Your task to perform on an android device: toggle notifications settings in the gmail app Image 0: 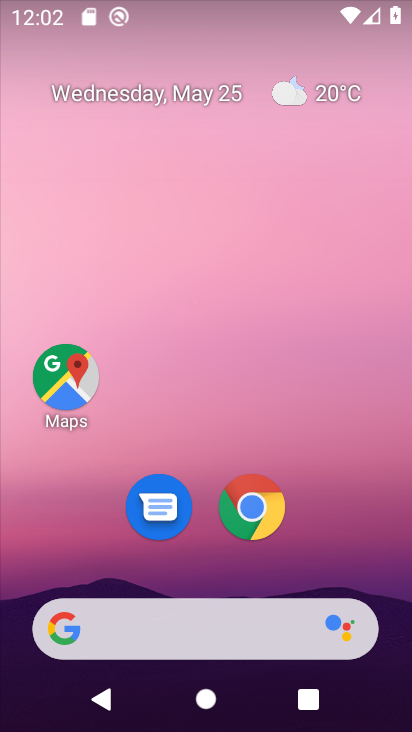
Step 0: drag from (336, 521) to (299, 160)
Your task to perform on an android device: toggle notifications settings in the gmail app Image 1: 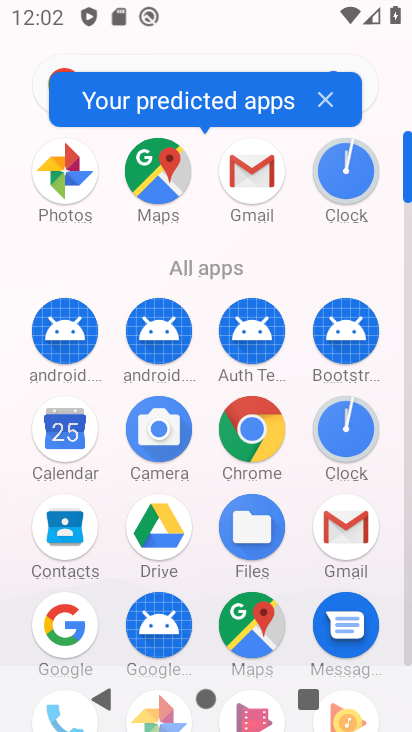
Step 1: click (350, 532)
Your task to perform on an android device: toggle notifications settings in the gmail app Image 2: 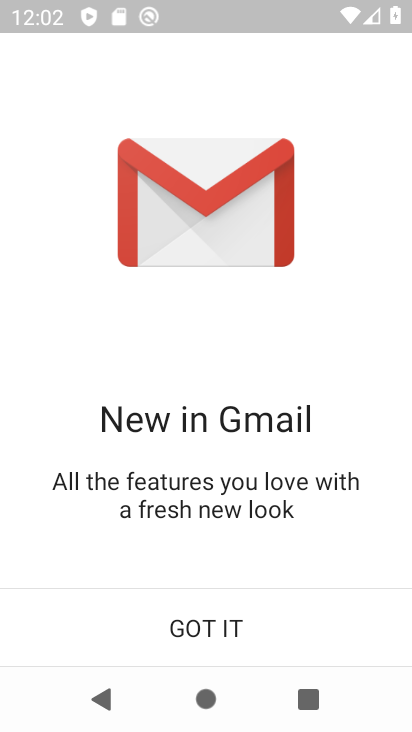
Step 2: click (242, 640)
Your task to perform on an android device: toggle notifications settings in the gmail app Image 3: 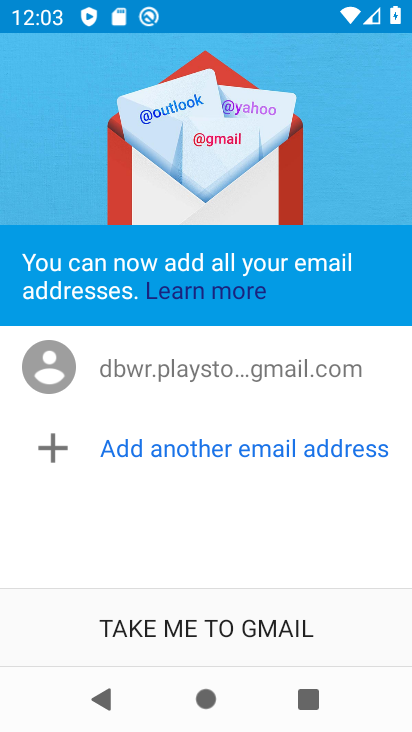
Step 3: click (240, 636)
Your task to perform on an android device: toggle notifications settings in the gmail app Image 4: 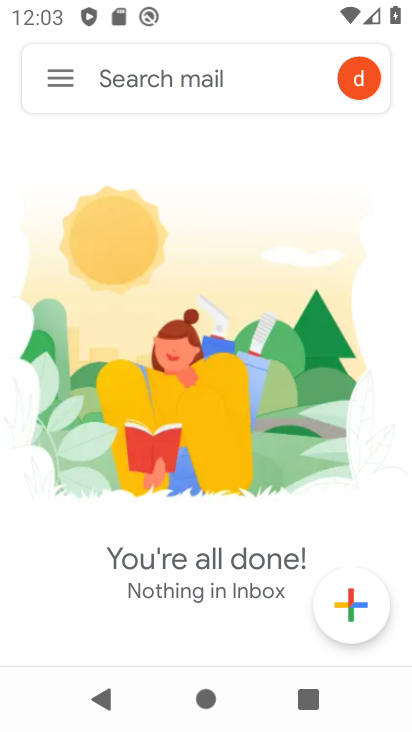
Step 4: click (55, 73)
Your task to perform on an android device: toggle notifications settings in the gmail app Image 5: 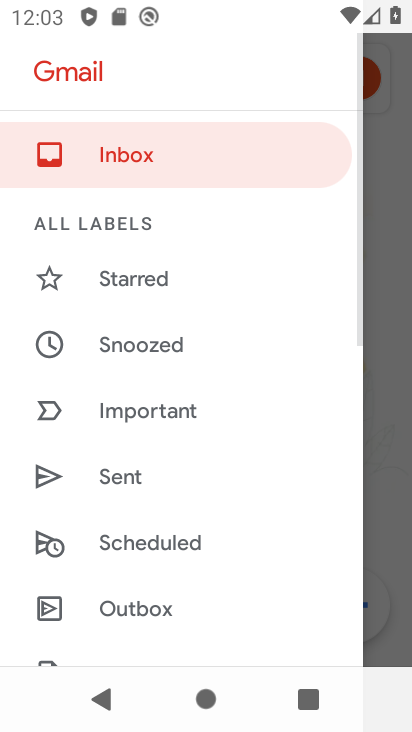
Step 5: drag from (181, 635) to (194, 171)
Your task to perform on an android device: toggle notifications settings in the gmail app Image 6: 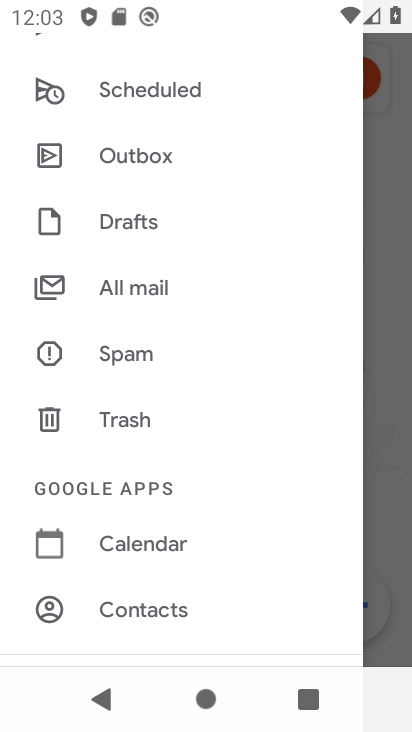
Step 6: drag from (183, 555) to (179, 225)
Your task to perform on an android device: toggle notifications settings in the gmail app Image 7: 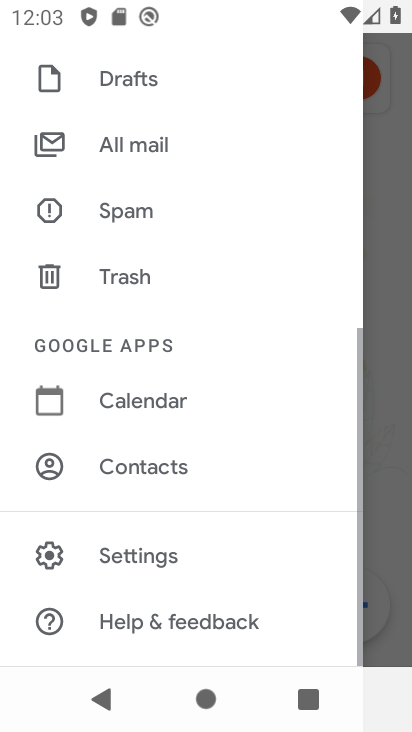
Step 7: click (162, 553)
Your task to perform on an android device: toggle notifications settings in the gmail app Image 8: 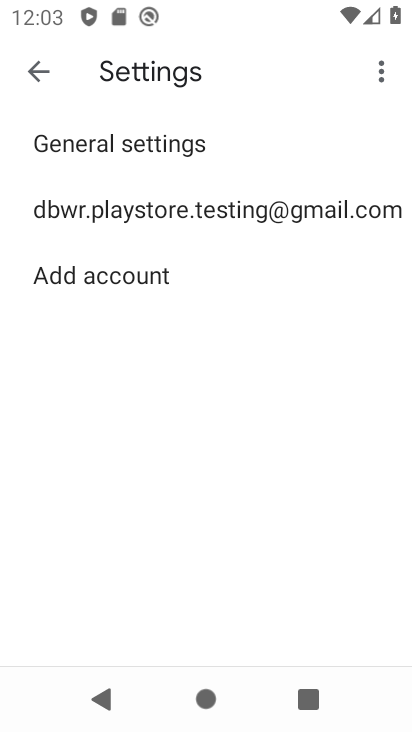
Step 8: click (243, 208)
Your task to perform on an android device: toggle notifications settings in the gmail app Image 9: 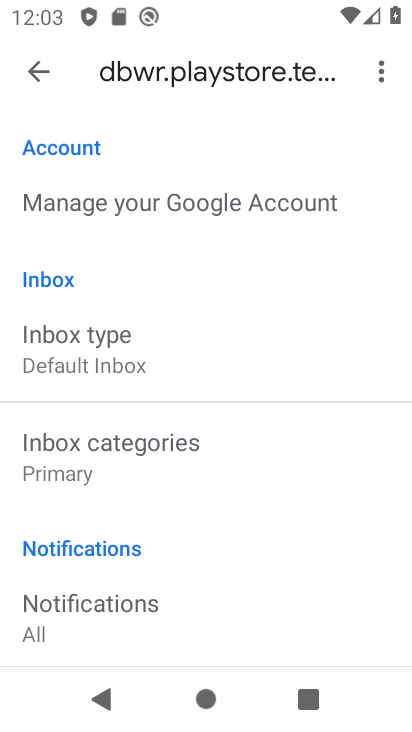
Step 9: drag from (189, 573) to (170, 207)
Your task to perform on an android device: toggle notifications settings in the gmail app Image 10: 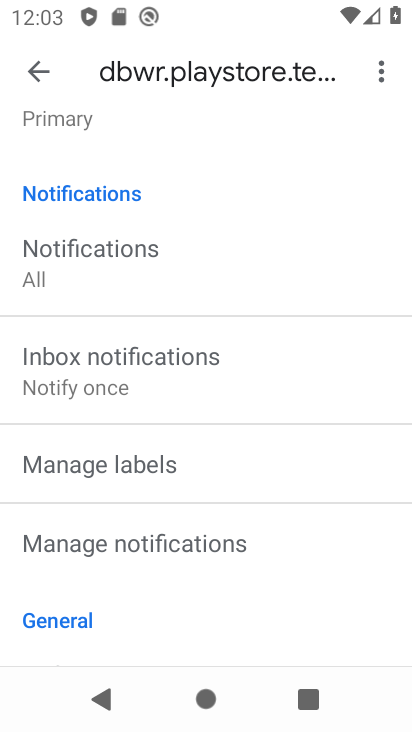
Step 10: click (147, 233)
Your task to perform on an android device: toggle notifications settings in the gmail app Image 11: 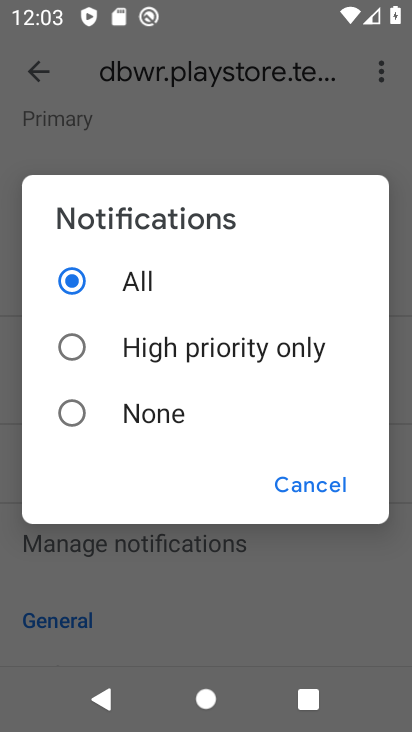
Step 11: click (134, 409)
Your task to perform on an android device: toggle notifications settings in the gmail app Image 12: 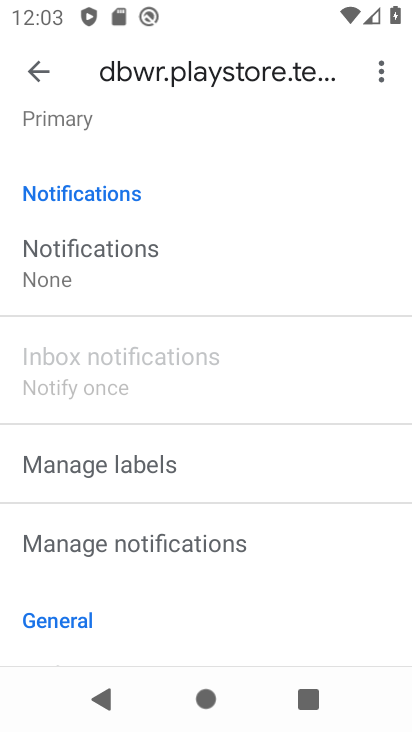
Step 12: task complete